Your task to perform on an android device: Go to sound settings Image 0: 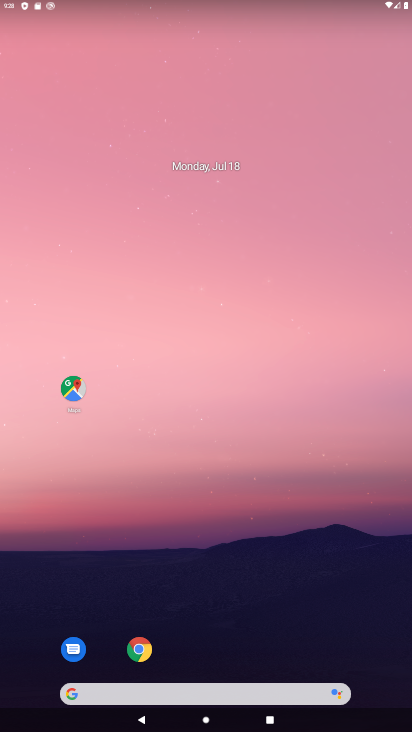
Step 0: drag from (74, 532) to (354, 4)
Your task to perform on an android device: Go to sound settings Image 1: 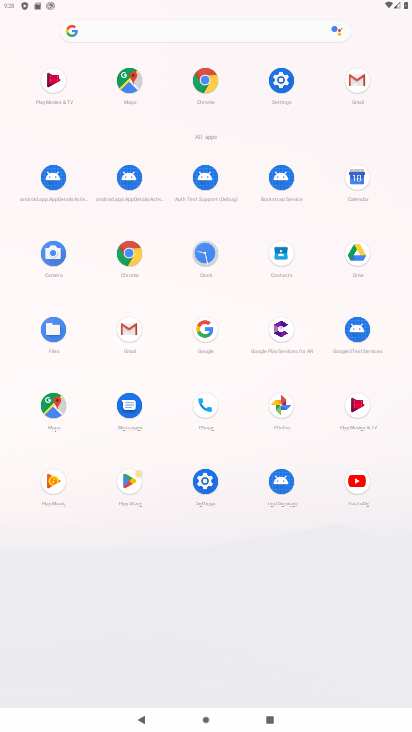
Step 1: click (266, 88)
Your task to perform on an android device: Go to sound settings Image 2: 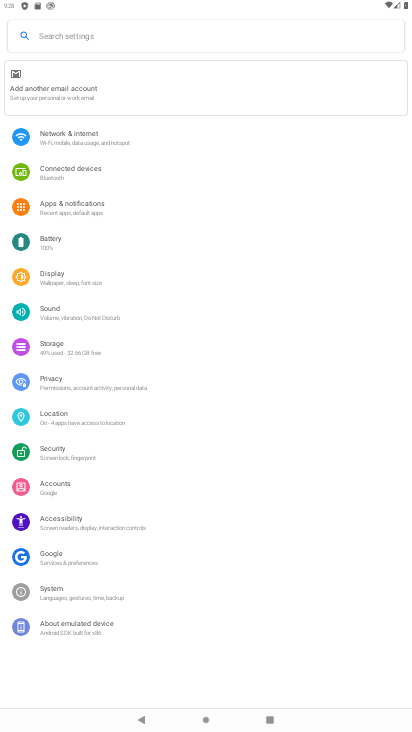
Step 2: click (154, 308)
Your task to perform on an android device: Go to sound settings Image 3: 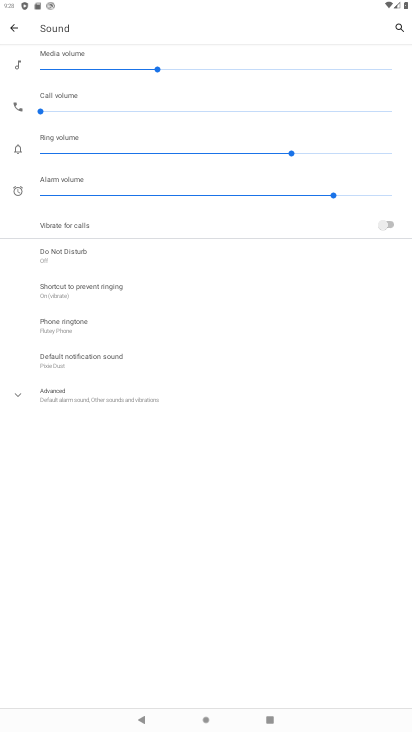
Step 3: task complete